Your task to perform on an android device: Open CNN.com Image 0: 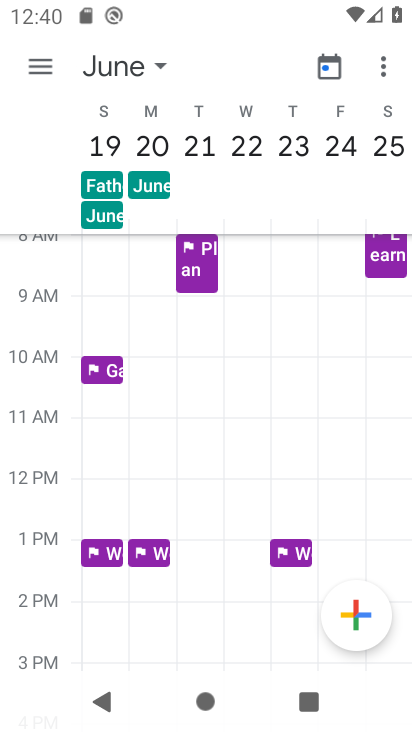
Step 0: press home button
Your task to perform on an android device: Open CNN.com Image 1: 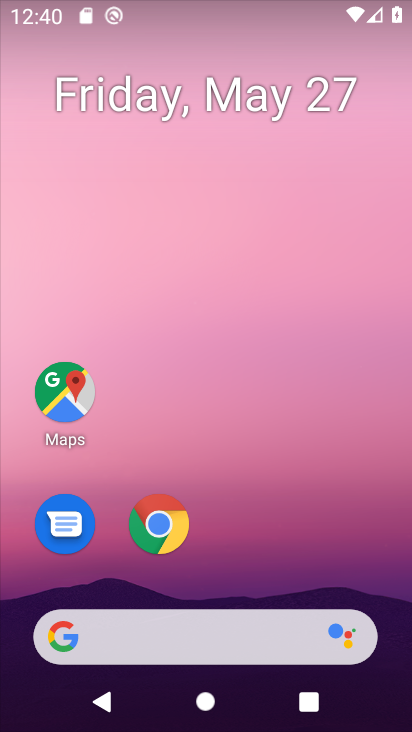
Step 1: click (235, 634)
Your task to perform on an android device: Open CNN.com Image 2: 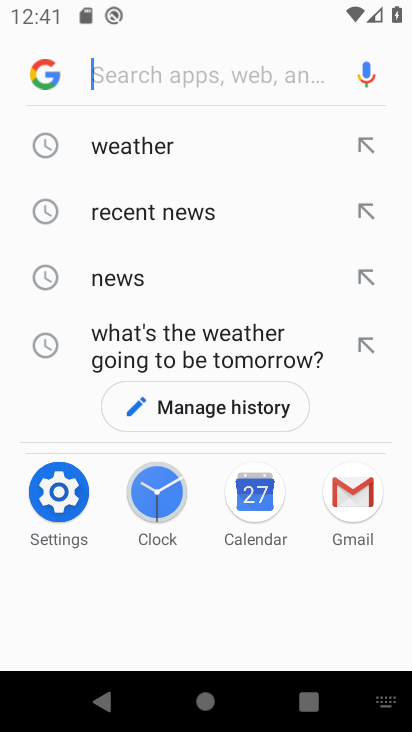
Step 2: type "cnn.com"
Your task to perform on an android device: Open CNN.com Image 3: 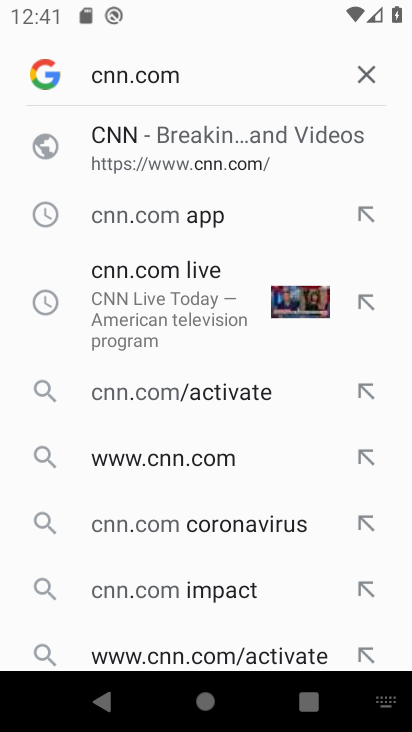
Step 3: click (114, 155)
Your task to perform on an android device: Open CNN.com Image 4: 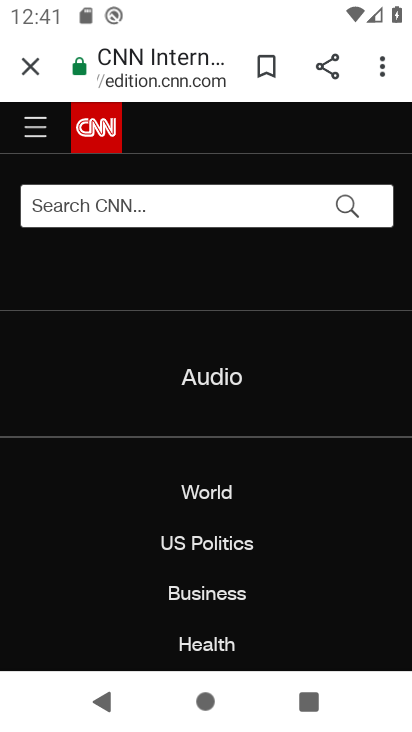
Step 4: task complete